Your task to perform on an android device: Open the stopwatch Image 0: 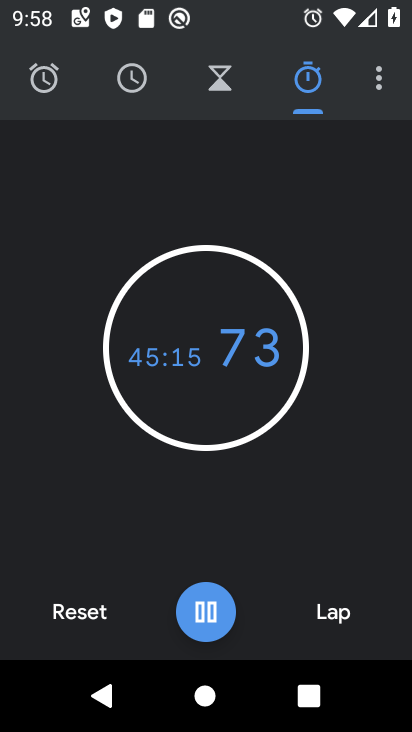
Step 0: press home button
Your task to perform on an android device: Open the stopwatch Image 1: 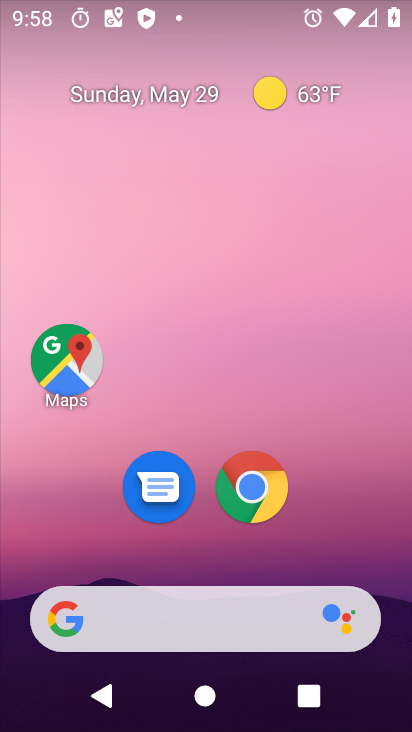
Step 1: drag from (183, 611) to (343, 95)
Your task to perform on an android device: Open the stopwatch Image 2: 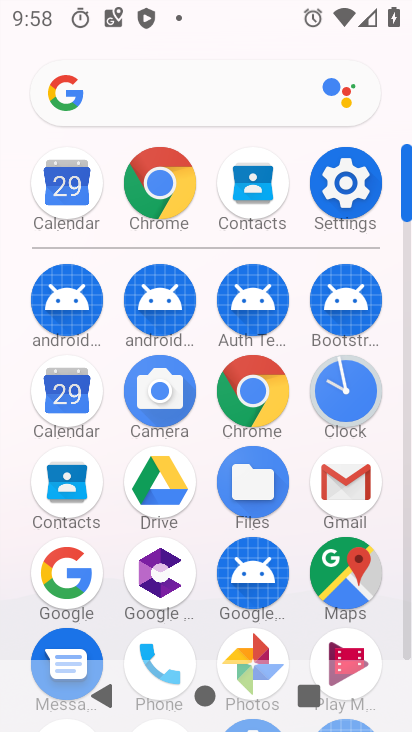
Step 2: click (349, 411)
Your task to perform on an android device: Open the stopwatch Image 3: 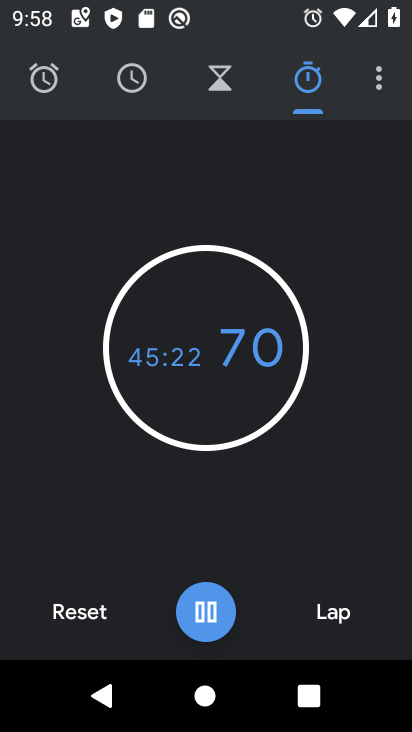
Step 3: task complete